Your task to perform on an android device: turn on improve location accuracy Image 0: 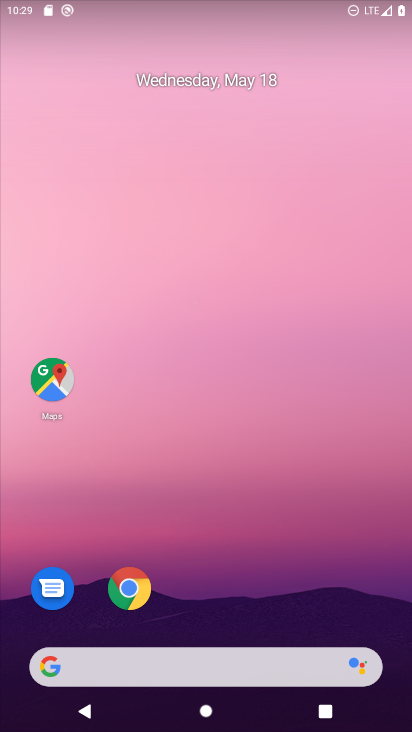
Step 0: drag from (340, 618) to (340, 8)
Your task to perform on an android device: turn on improve location accuracy Image 1: 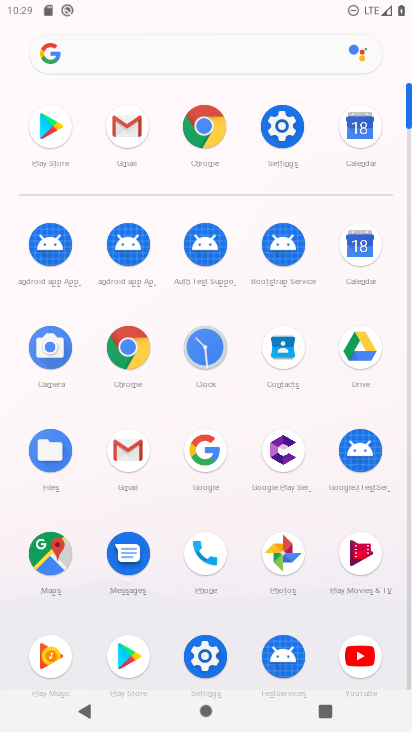
Step 1: click (283, 129)
Your task to perform on an android device: turn on improve location accuracy Image 2: 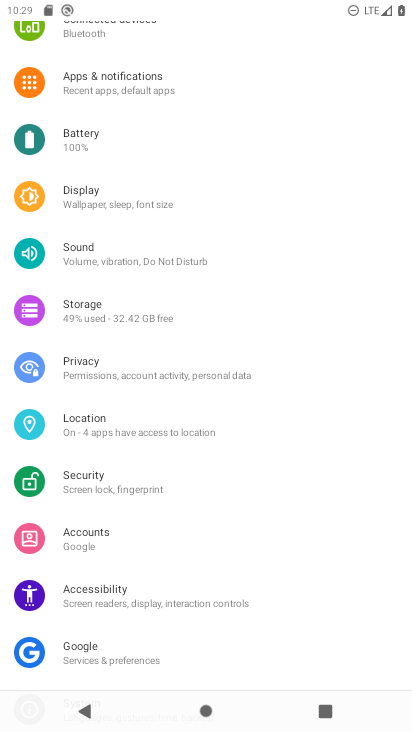
Step 2: click (82, 432)
Your task to perform on an android device: turn on improve location accuracy Image 3: 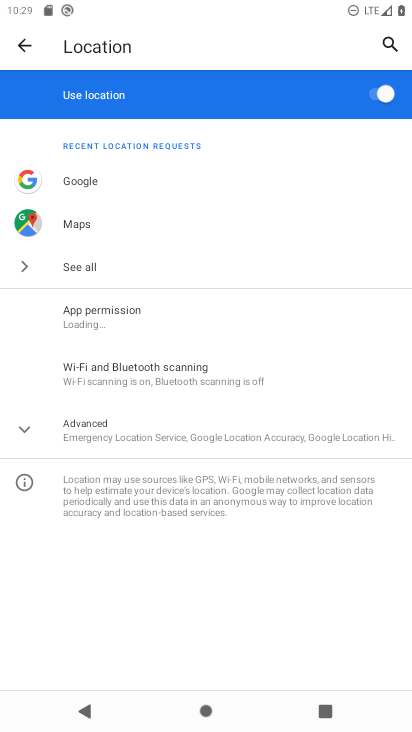
Step 3: click (22, 429)
Your task to perform on an android device: turn on improve location accuracy Image 4: 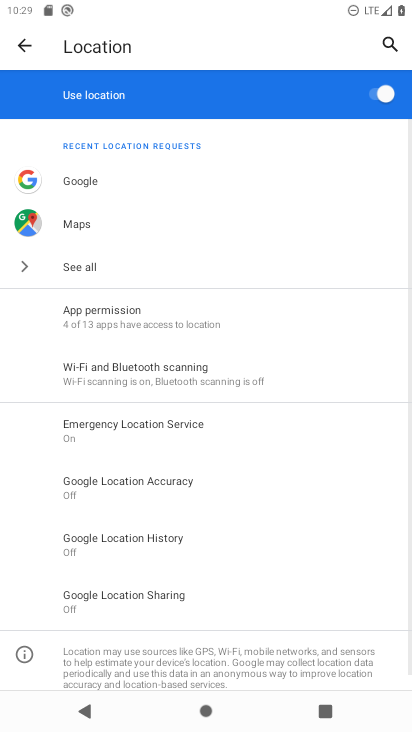
Step 4: click (83, 486)
Your task to perform on an android device: turn on improve location accuracy Image 5: 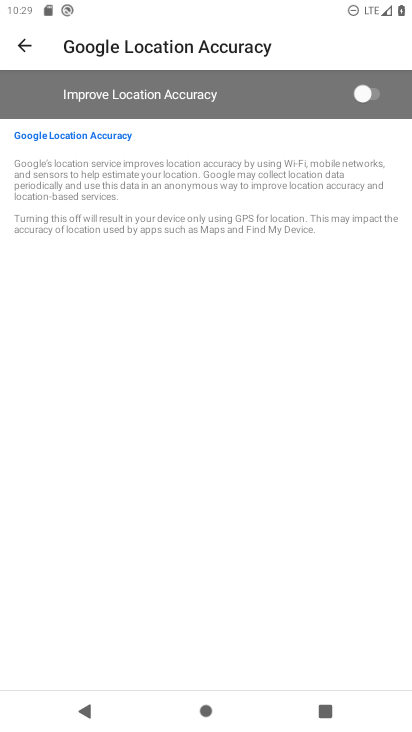
Step 5: click (355, 100)
Your task to perform on an android device: turn on improve location accuracy Image 6: 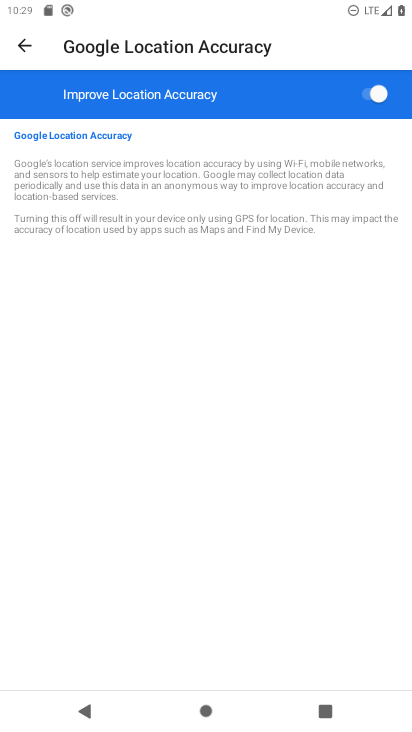
Step 6: task complete